Your task to perform on an android device: make emails show in primary in the gmail app Image 0: 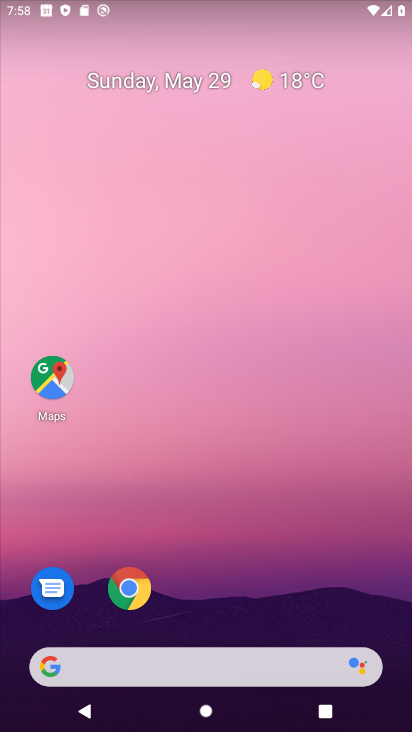
Step 0: drag from (213, 582) to (240, 180)
Your task to perform on an android device: make emails show in primary in the gmail app Image 1: 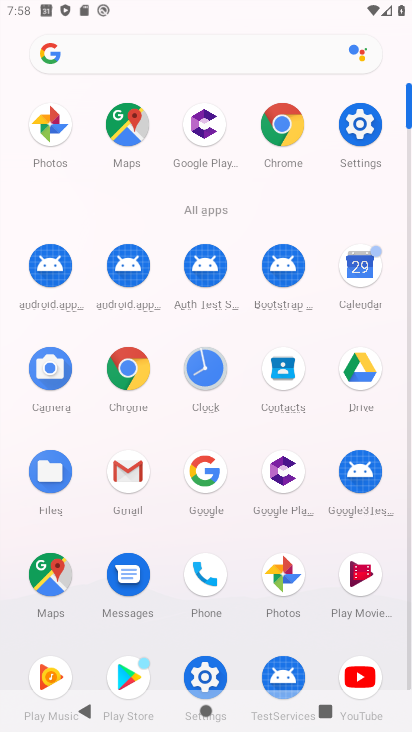
Step 1: click (133, 471)
Your task to perform on an android device: make emails show in primary in the gmail app Image 2: 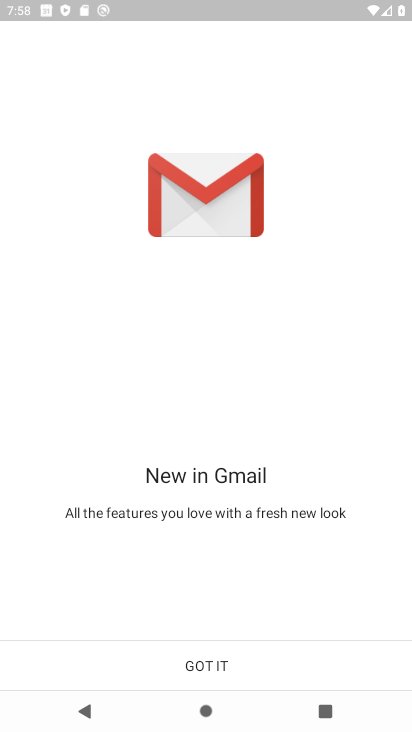
Step 2: click (212, 671)
Your task to perform on an android device: make emails show in primary in the gmail app Image 3: 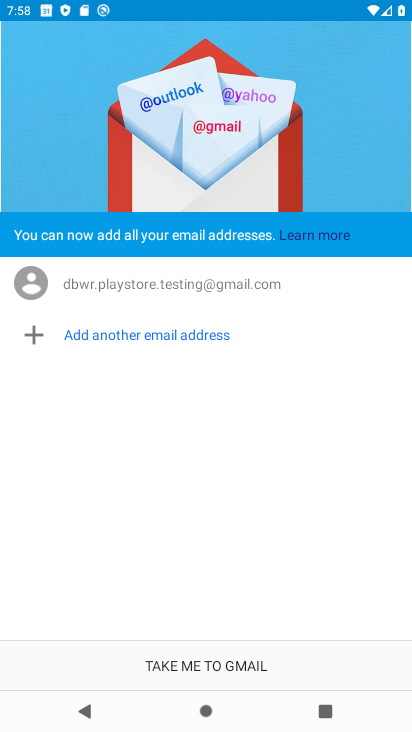
Step 3: click (214, 664)
Your task to perform on an android device: make emails show in primary in the gmail app Image 4: 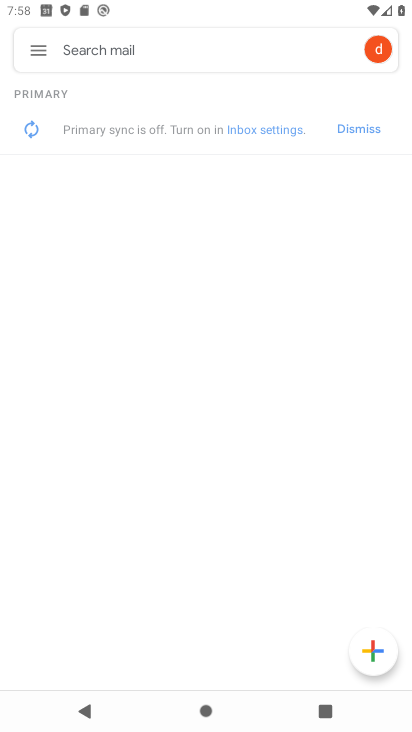
Step 4: click (39, 44)
Your task to perform on an android device: make emails show in primary in the gmail app Image 5: 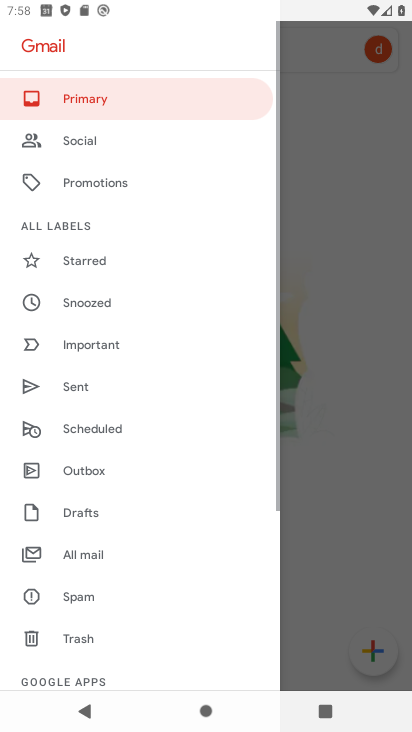
Step 5: drag from (130, 689) to (153, 358)
Your task to perform on an android device: make emails show in primary in the gmail app Image 6: 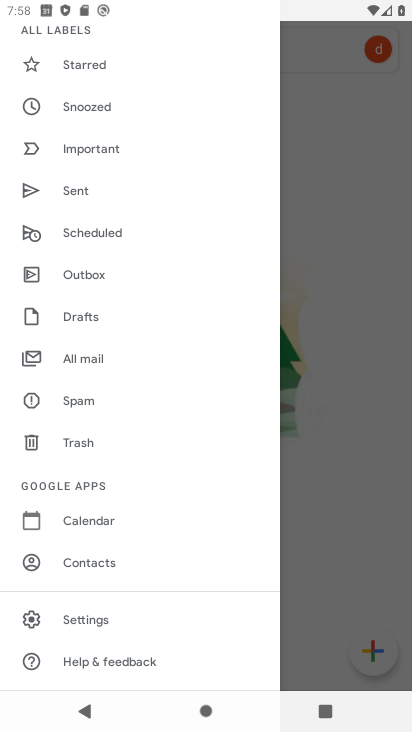
Step 6: click (90, 622)
Your task to perform on an android device: make emails show in primary in the gmail app Image 7: 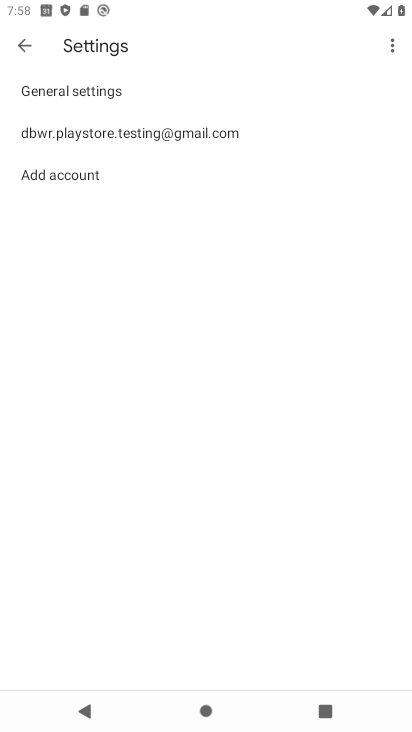
Step 7: click (113, 141)
Your task to perform on an android device: make emails show in primary in the gmail app Image 8: 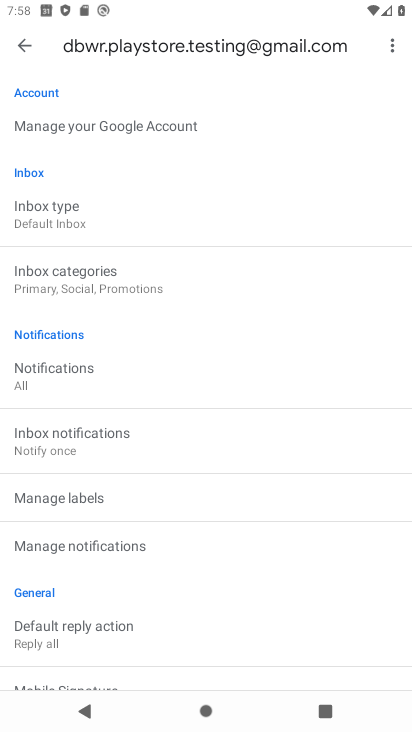
Step 8: click (57, 282)
Your task to perform on an android device: make emails show in primary in the gmail app Image 9: 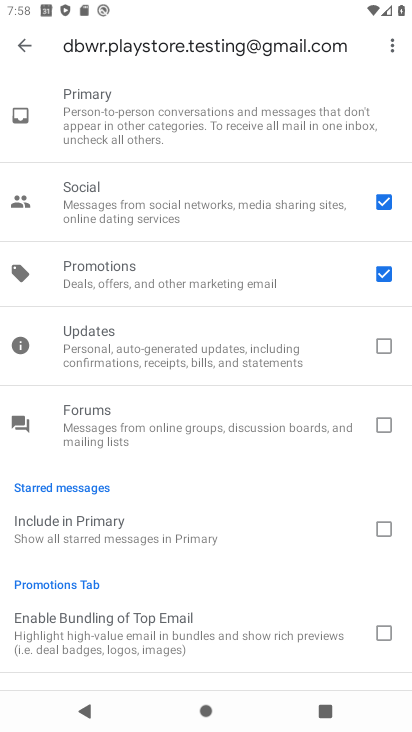
Step 9: click (380, 200)
Your task to perform on an android device: make emails show in primary in the gmail app Image 10: 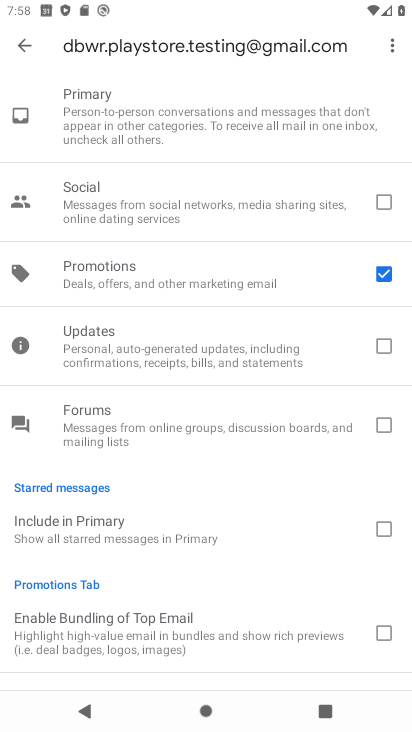
Step 10: click (381, 268)
Your task to perform on an android device: make emails show in primary in the gmail app Image 11: 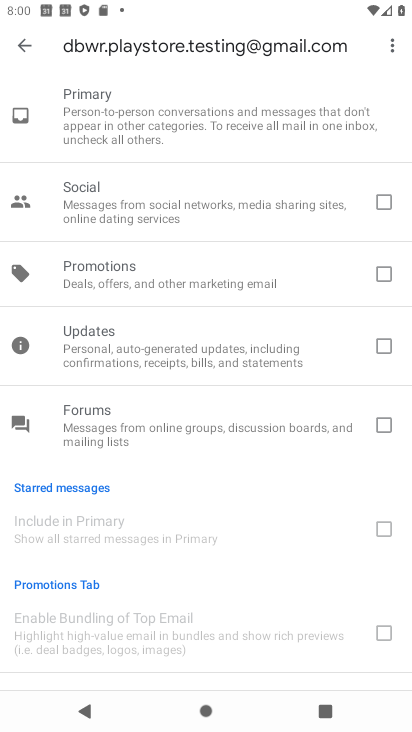
Step 11: task complete